Your task to perform on an android device: Go to internet settings Image 0: 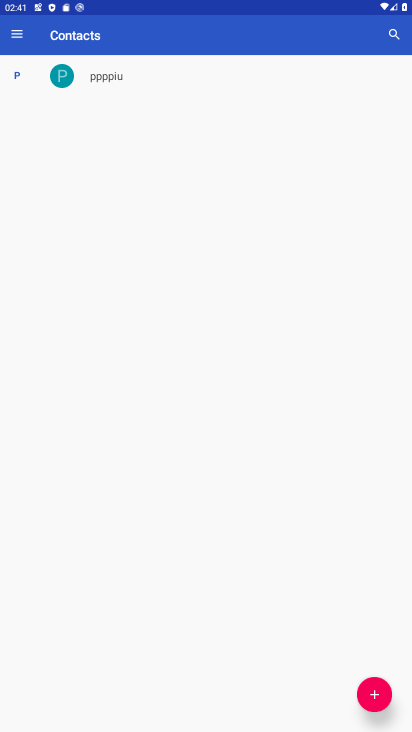
Step 0: press home button
Your task to perform on an android device: Go to internet settings Image 1: 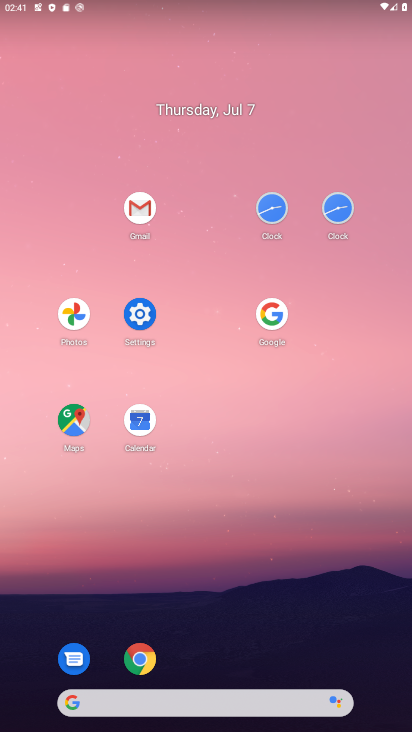
Step 1: click (132, 317)
Your task to perform on an android device: Go to internet settings Image 2: 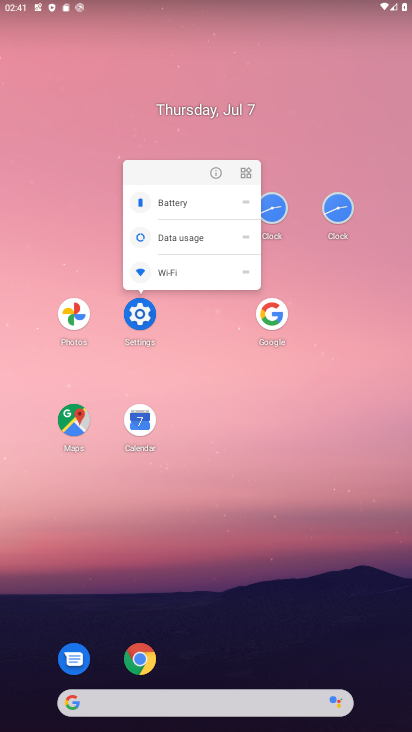
Step 2: click (131, 327)
Your task to perform on an android device: Go to internet settings Image 3: 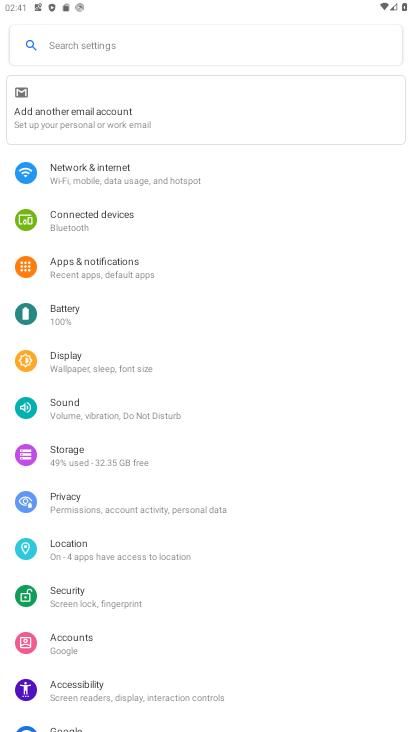
Step 3: click (174, 165)
Your task to perform on an android device: Go to internet settings Image 4: 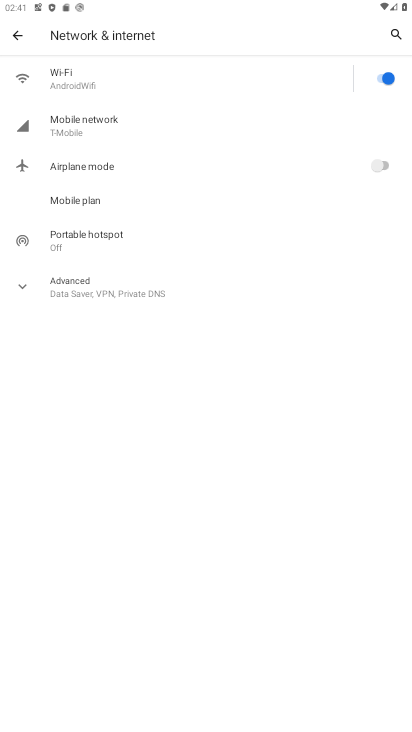
Step 4: task complete